Your task to perform on an android device: Open Chrome and go to settings Image 0: 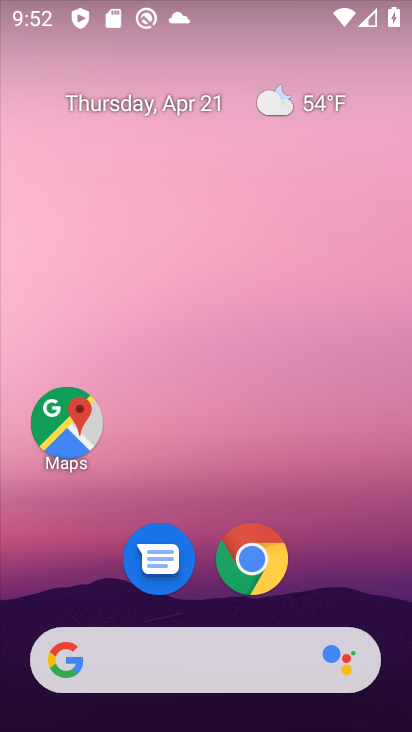
Step 0: press home button
Your task to perform on an android device: Open Chrome and go to settings Image 1: 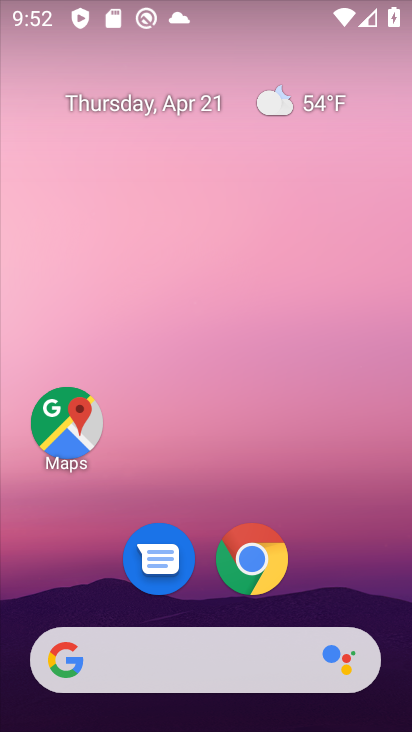
Step 1: drag from (143, 671) to (327, 140)
Your task to perform on an android device: Open Chrome and go to settings Image 2: 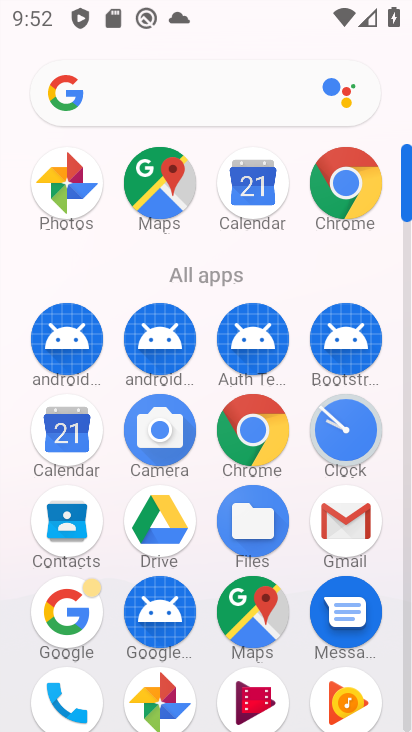
Step 2: click (347, 200)
Your task to perform on an android device: Open Chrome and go to settings Image 3: 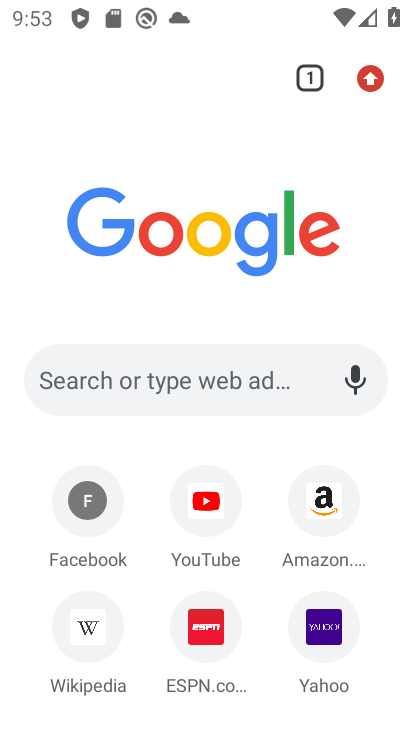
Step 3: click (363, 91)
Your task to perform on an android device: Open Chrome and go to settings Image 4: 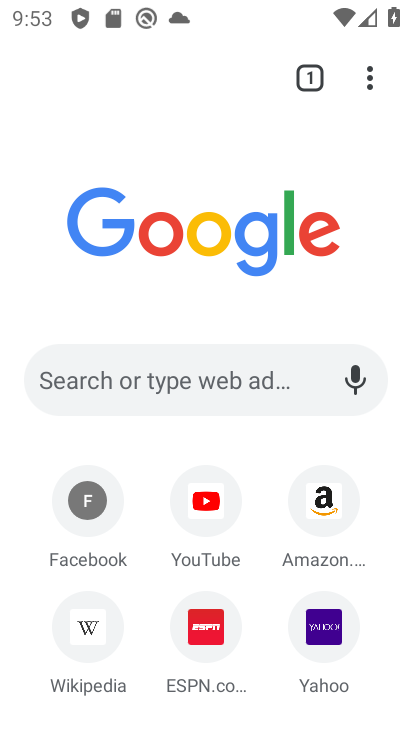
Step 4: click (356, 92)
Your task to perform on an android device: Open Chrome and go to settings Image 5: 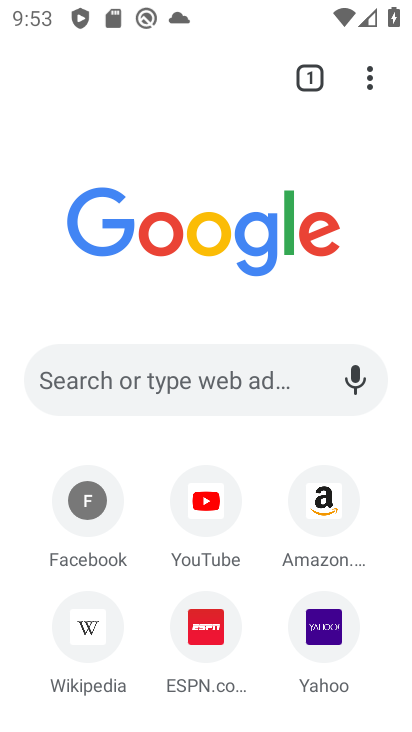
Step 5: click (357, 87)
Your task to perform on an android device: Open Chrome and go to settings Image 6: 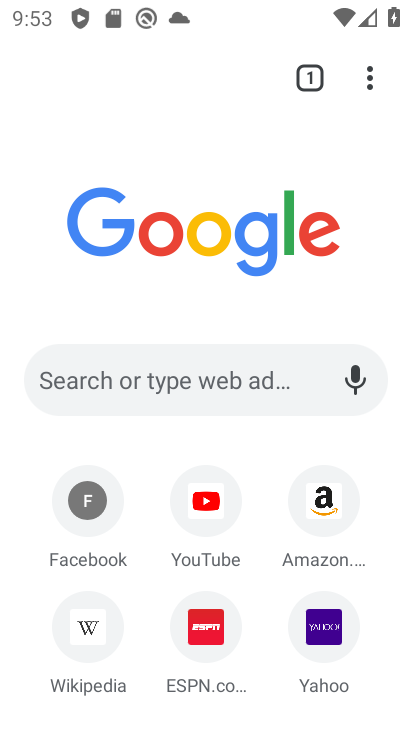
Step 6: click (351, 88)
Your task to perform on an android device: Open Chrome and go to settings Image 7: 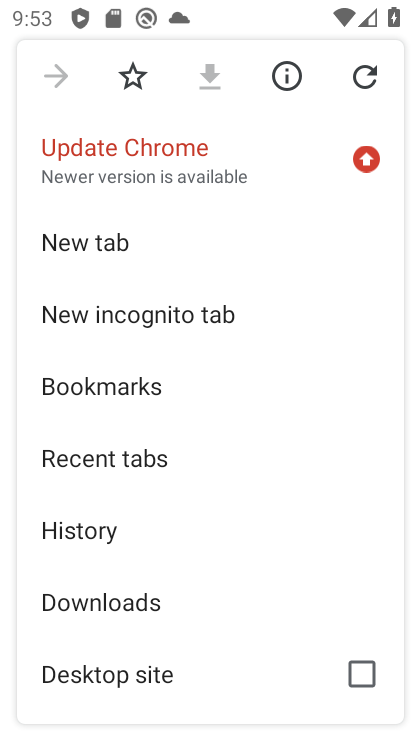
Step 7: drag from (189, 628) to (347, 181)
Your task to perform on an android device: Open Chrome and go to settings Image 8: 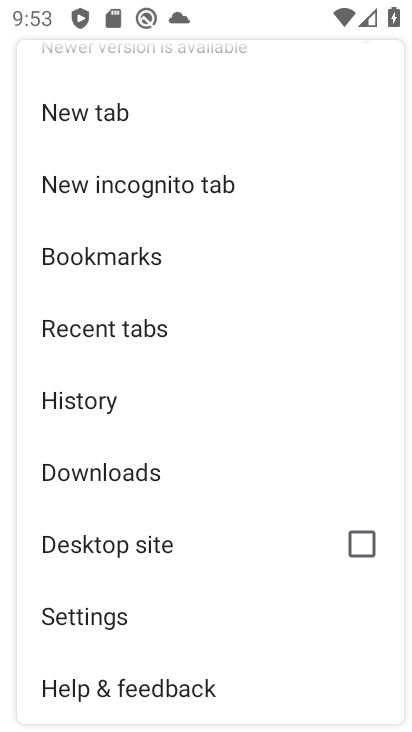
Step 8: click (106, 614)
Your task to perform on an android device: Open Chrome and go to settings Image 9: 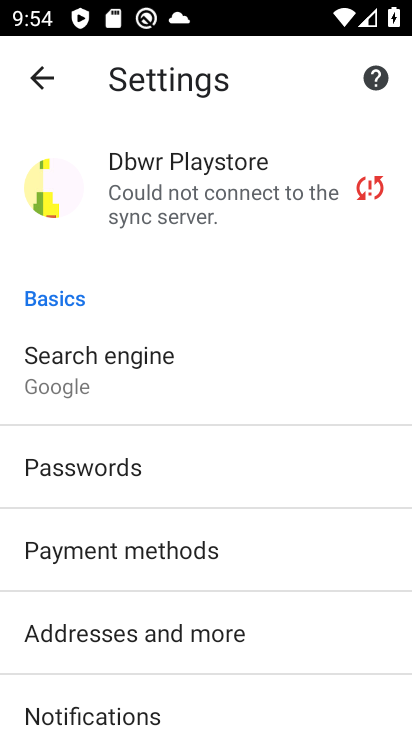
Step 9: task complete